Your task to perform on an android device: set the timer Image 0: 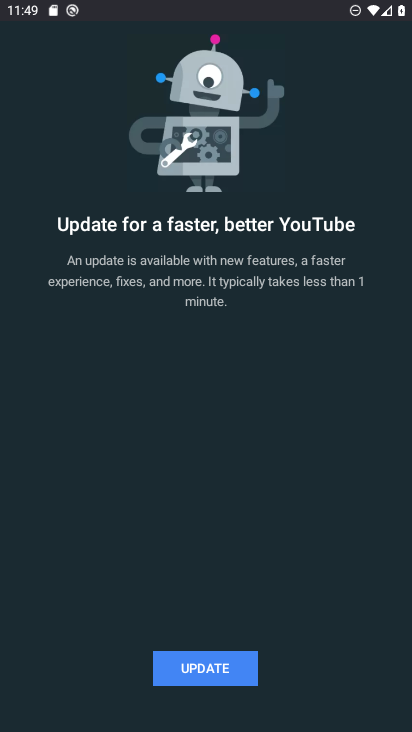
Step 0: press home button
Your task to perform on an android device: set the timer Image 1: 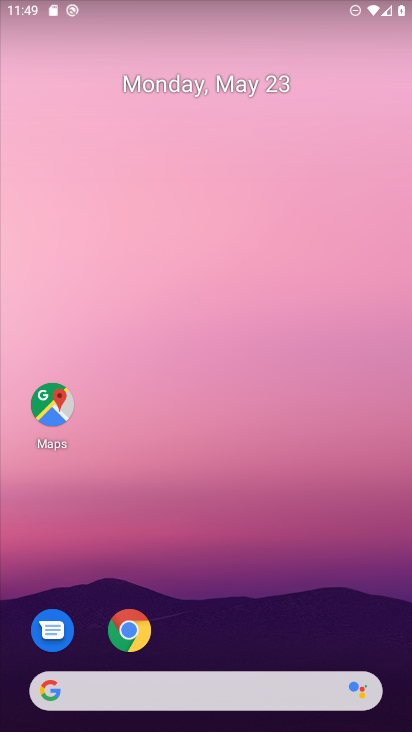
Step 1: drag from (194, 636) to (211, 327)
Your task to perform on an android device: set the timer Image 2: 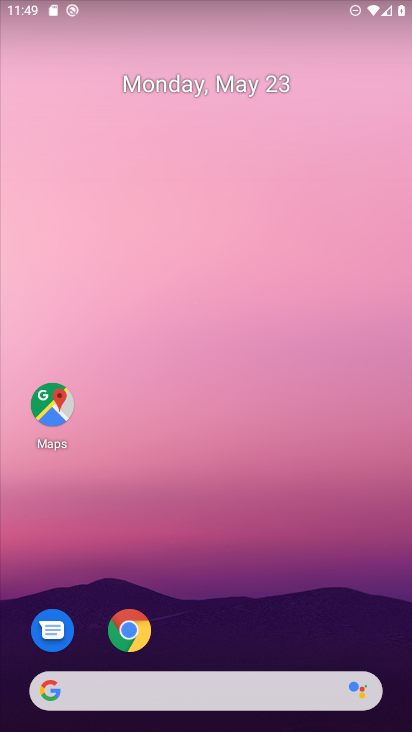
Step 2: drag from (230, 654) to (262, 89)
Your task to perform on an android device: set the timer Image 3: 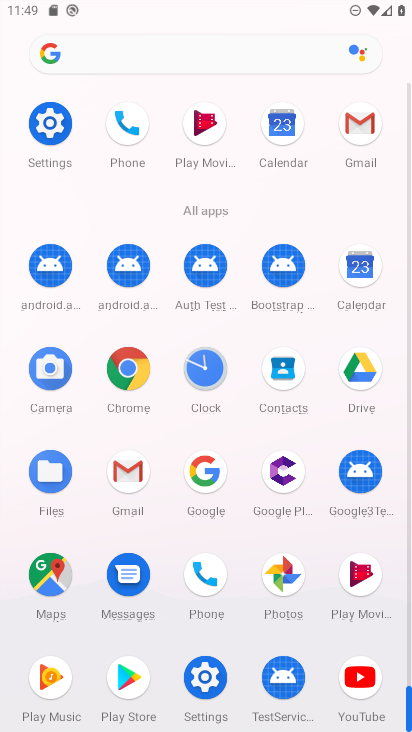
Step 3: click (203, 369)
Your task to perform on an android device: set the timer Image 4: 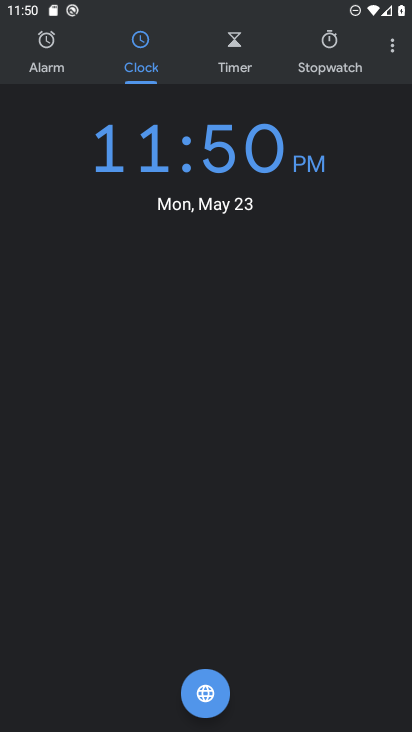
Step 4: click (247, 55)
Your task to perform on an android device: set the timer Image 5: 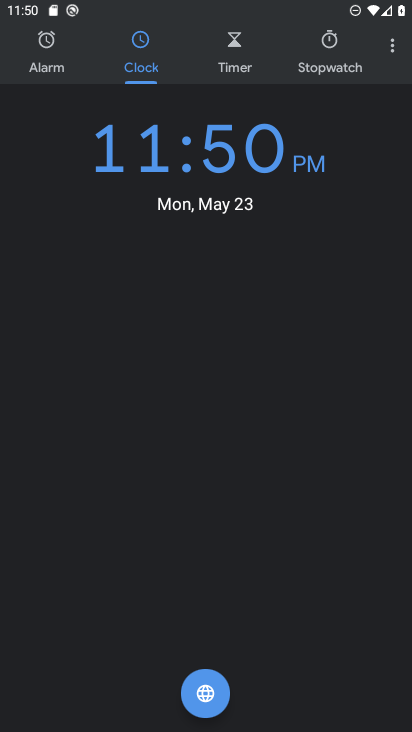
Step 5: click (246, 54)
Your task to perform on an android device: set the timer Image 6: 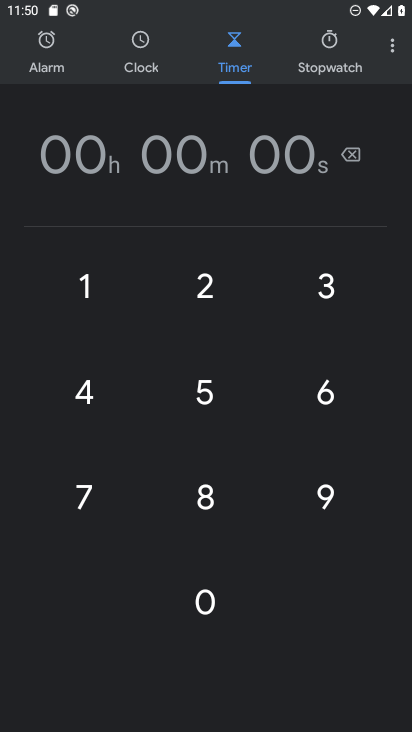
Step 6: click (214, 276)
Your task to perform on an android device: set the timer Image 7: 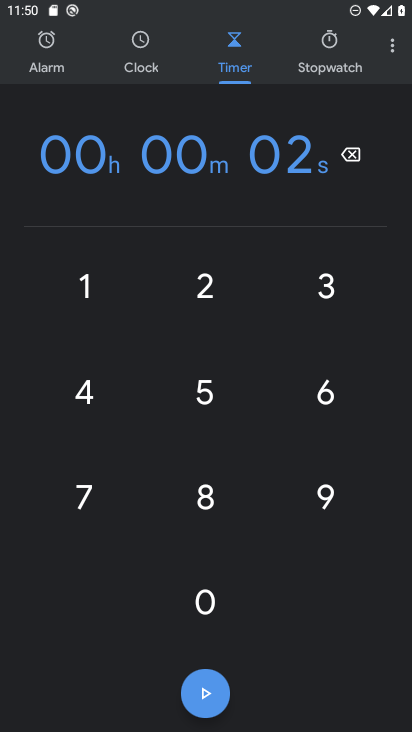
Step 7: click (223, 404)
Your task to perform on an android device: set the timer Image 8: 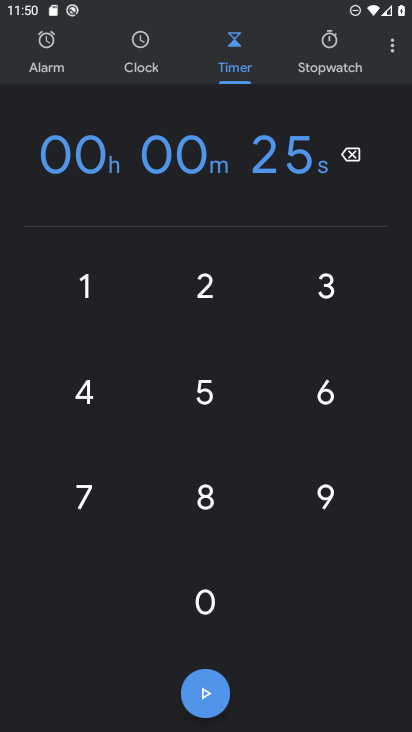
Step 8: click (343, 391)
Your task to perform on an android device: set the timer Image 9: 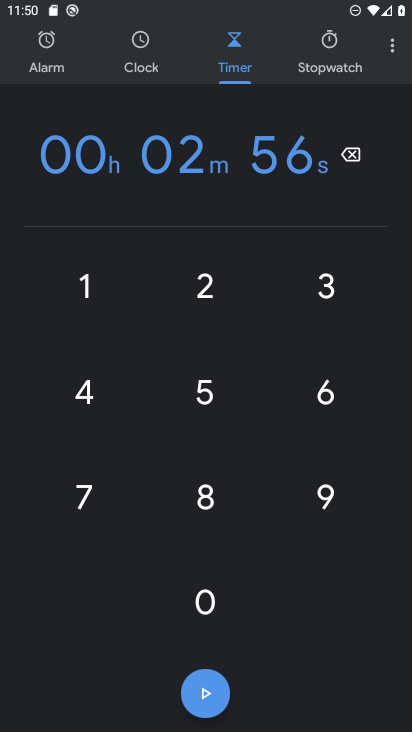
Step 9: task complete